Your task to perform on an android device: open app "McDonald's" (install if not already installed) and go to login screen Image 0: 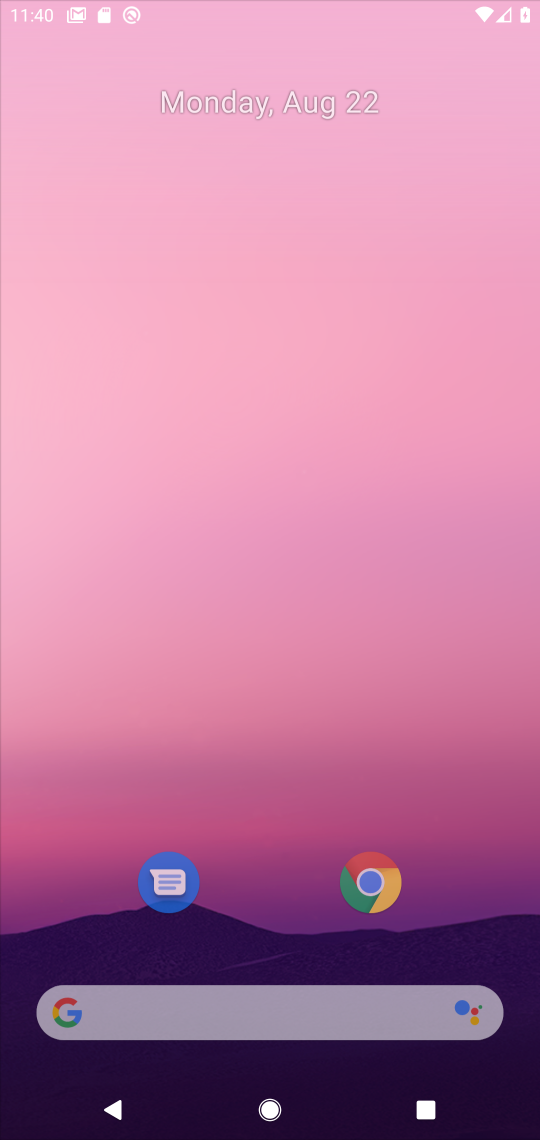
Step 0: drag from (464, 195) to (507, 61)
Your task to perform on an android device: open app "McDonald's" (install if not already installed) and go to login screen Image 1: 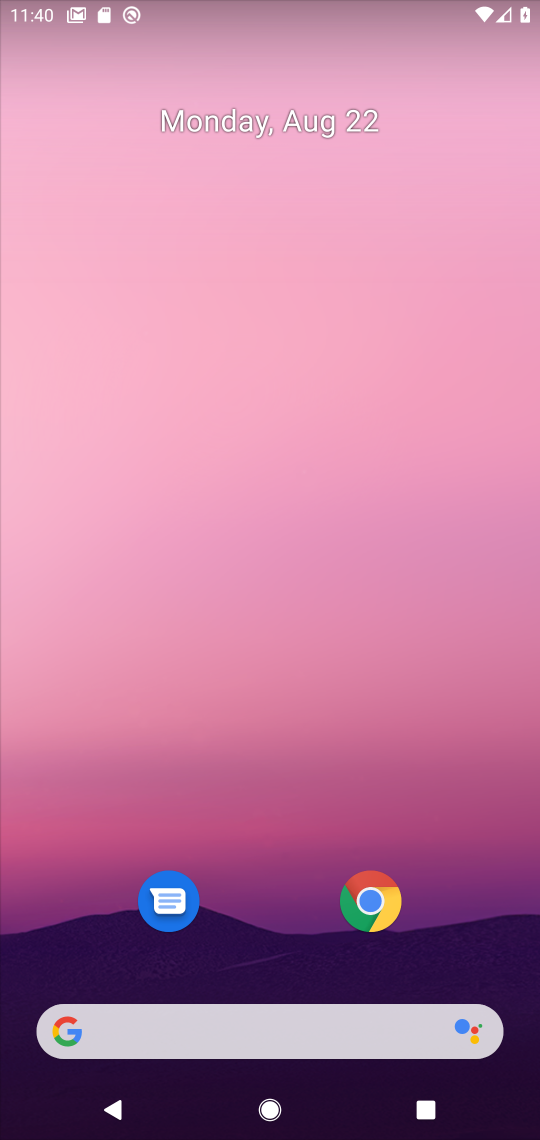
Step 1: drag from (240, 926) to (370, 232)
Your task to perform on an android device: open app "McDonald's" (install if not already installed) and go to login screen Image 2: 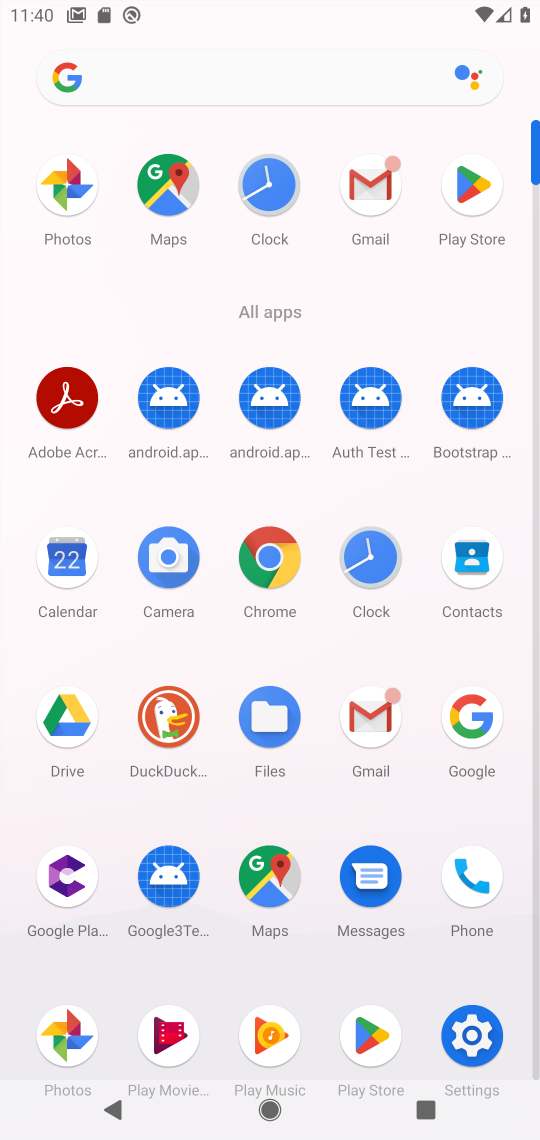
Step 2: click (484, 236)
Your task to perform on an android device: open app "McDonald's" (install if not already installed) and go to login screen Image 3: 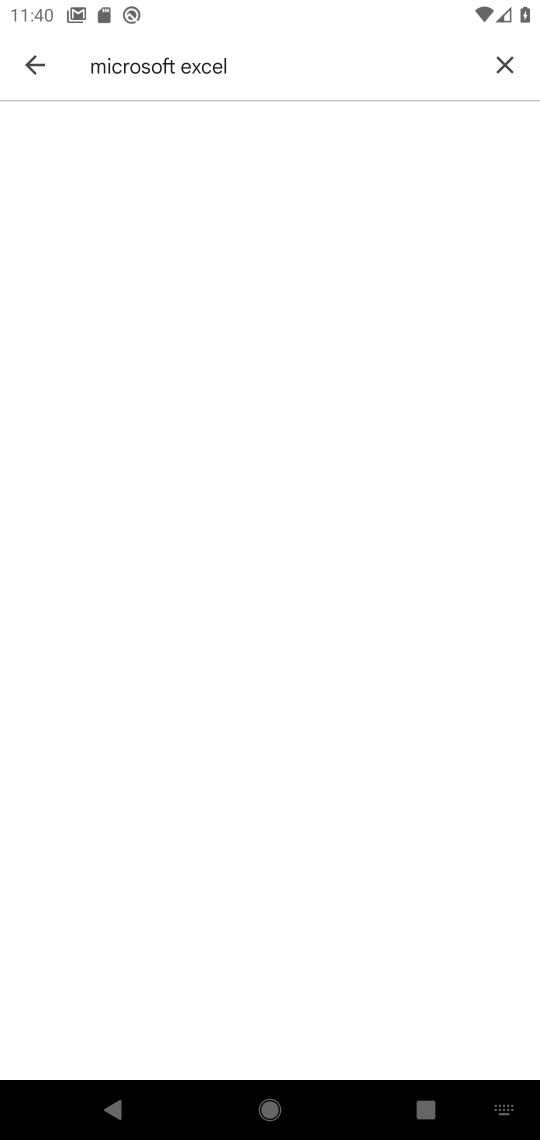
Step 3: click (512, 58)
Your task to perform on an android device: open app "McDonald's" (install if not already installed) and go to login screen Image 4: 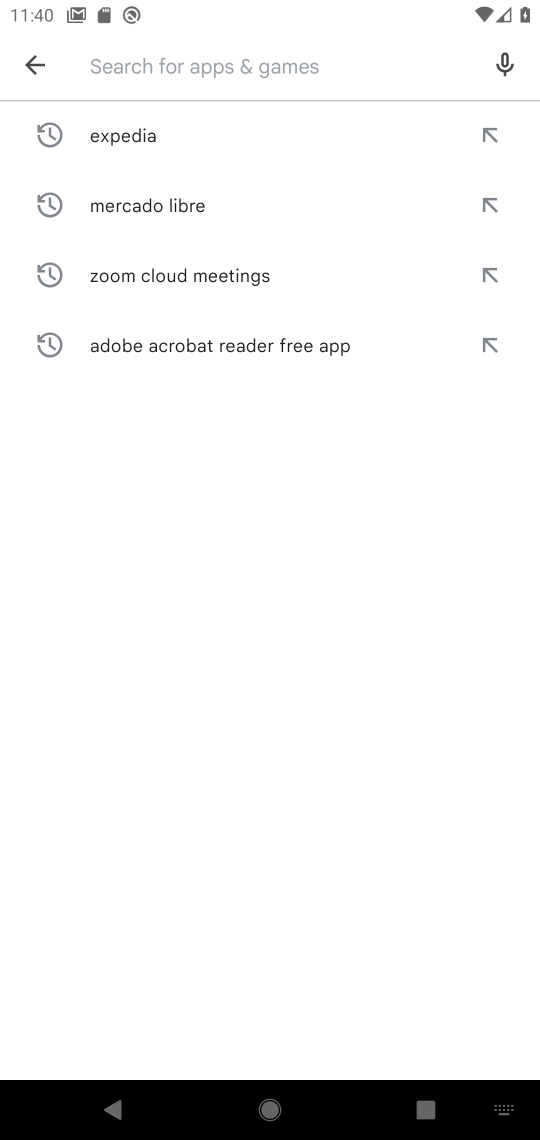
Step 4: type "McDonalds"
Your task to perform on an android device: open app "McDonald's" (install if not already installed) and go to login screen Image 5: 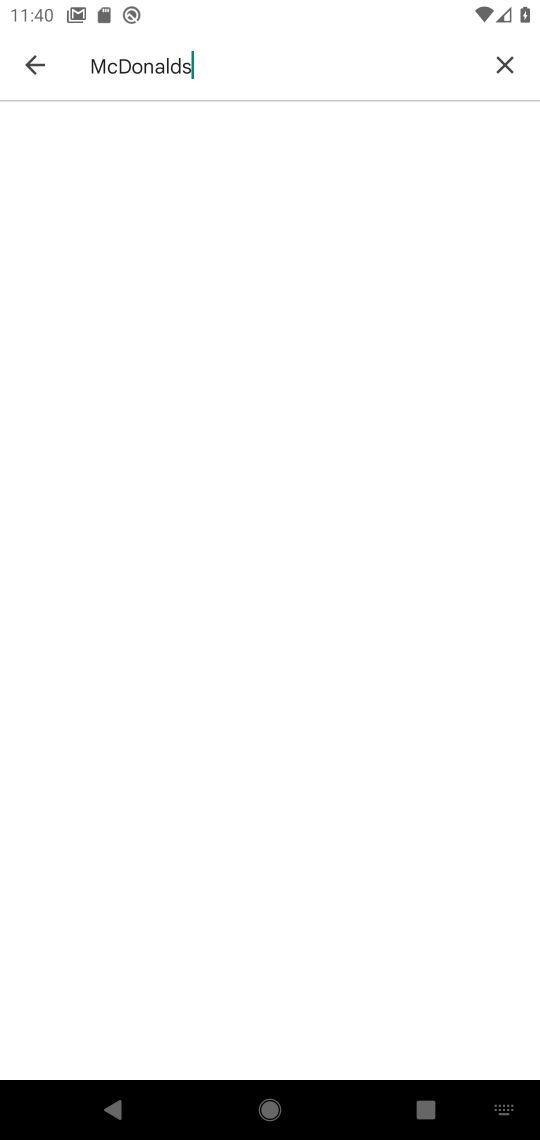
Step 5: click (286, 269)
Your task to perform on an android device: open app "McDonald's" (install if not already installed) and go to login screen Image 6: 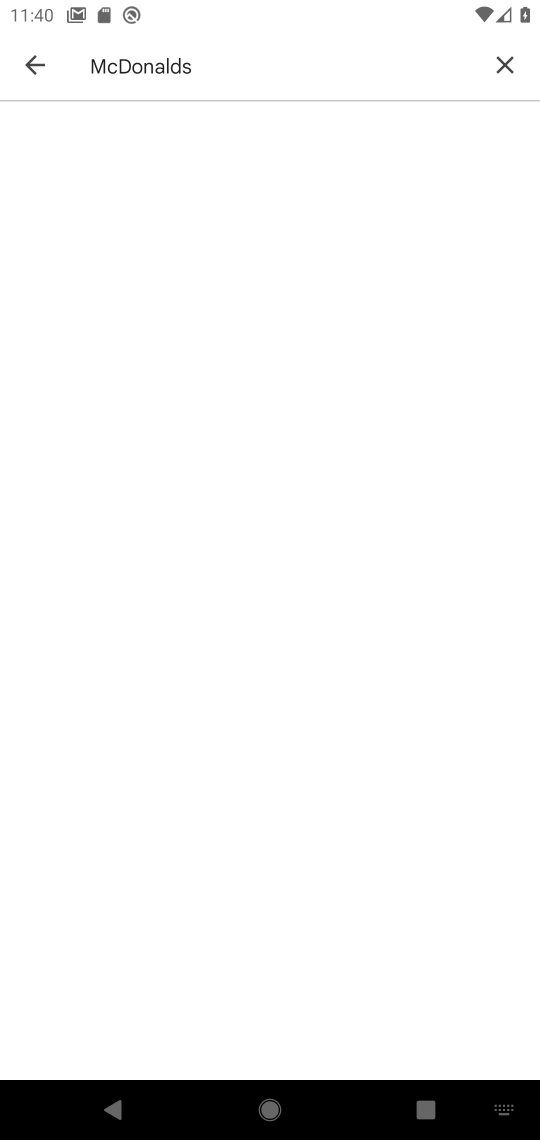
Step 6: drag from (284, 84) to (264, 691)
Your task to perform on an android device: open app "McDonald's" (install if not already installed) and go to login screen Image 7: 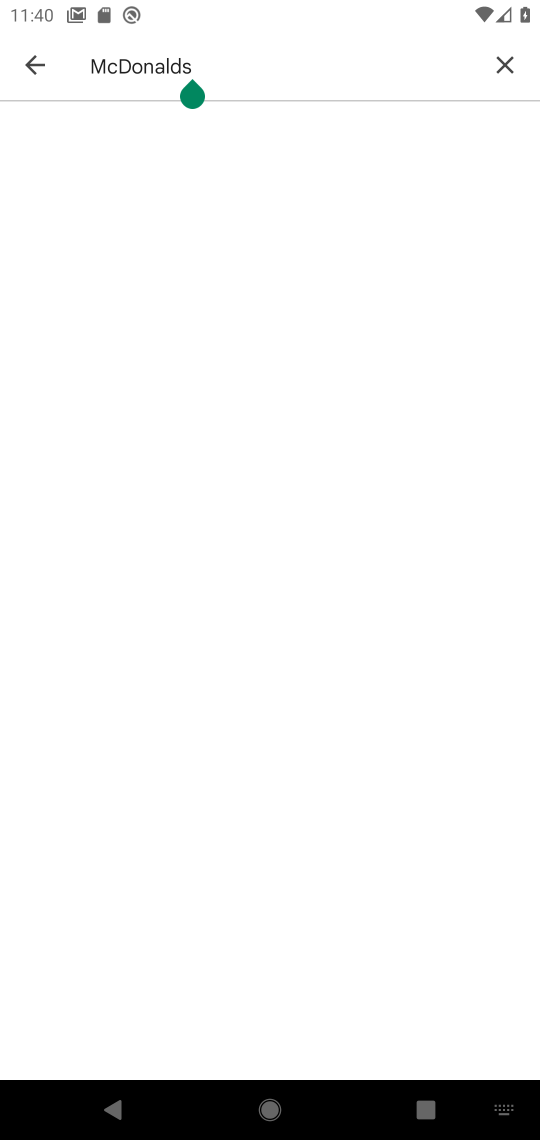
Step 7: drag from (204, 107) to (219, 686)
Your task to perform on an android device: open app "McDonald's" (install if not already installed) and go to login screen Image 8: 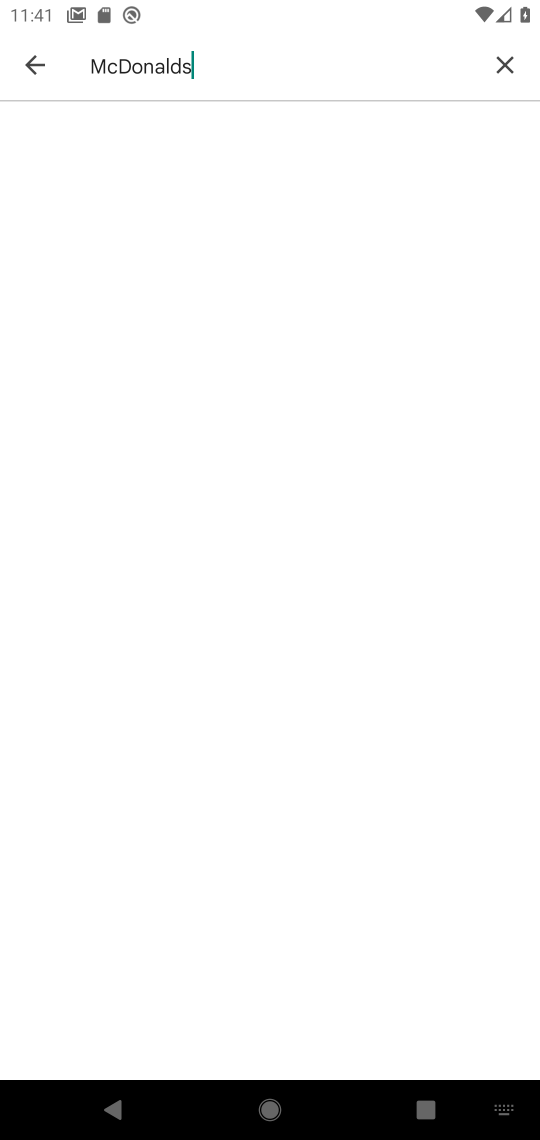
Step 8: drag from (197, 185) to (217, 647)
Your task to perform on an android device: open app "McDonald's" (install if not already installed) and go to login screen Image 9: 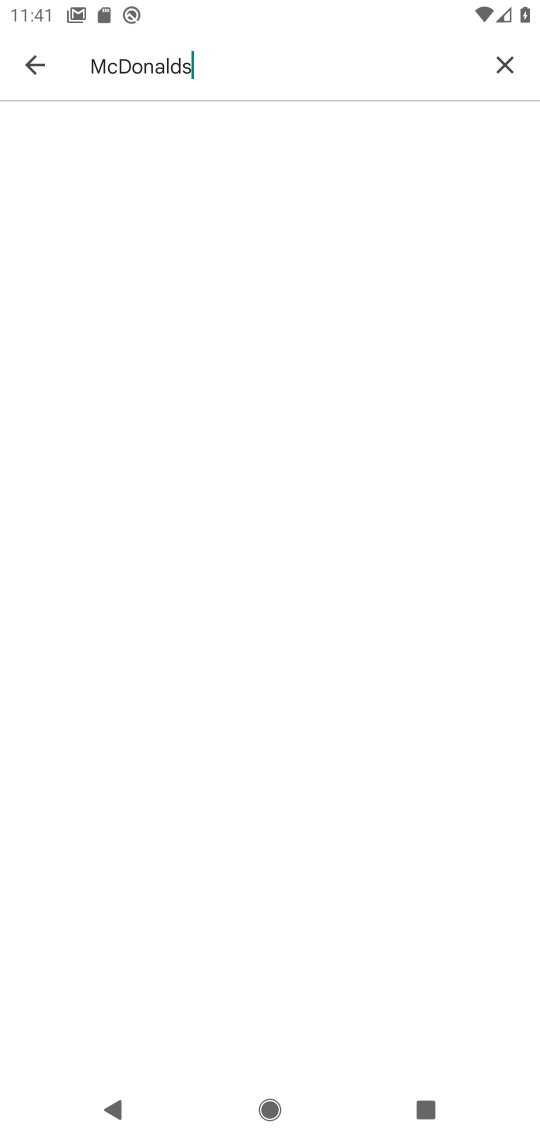
Step 9: click (241, 235)
Your task to perform on an android device: open app "McDonald's" (install if not already installed) and go to login screen Image 10: 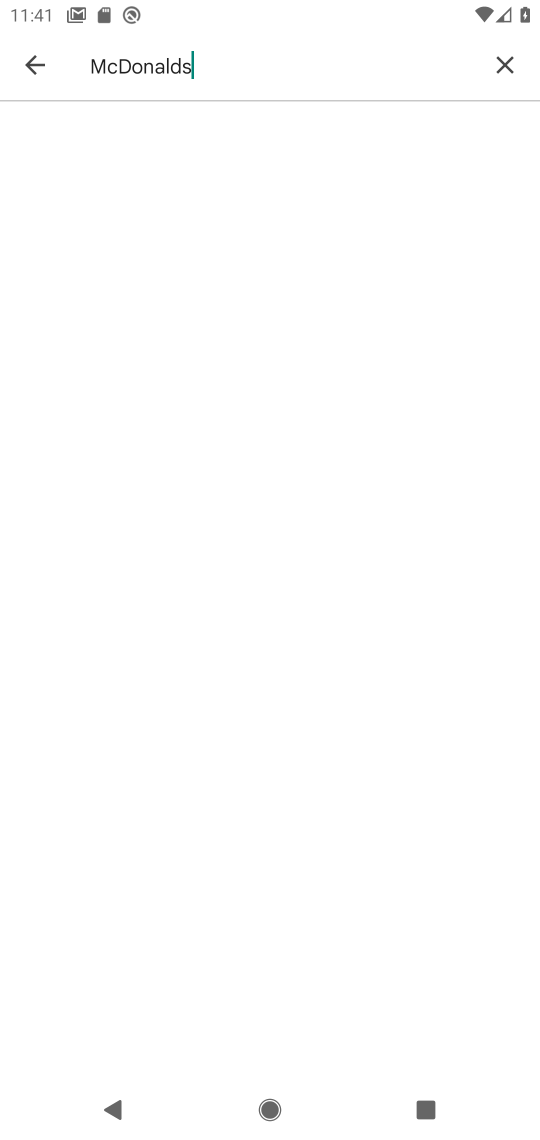
Step 10: task complete